Your task to perform on an android device: toggle javascript in the chrome app Image 0: 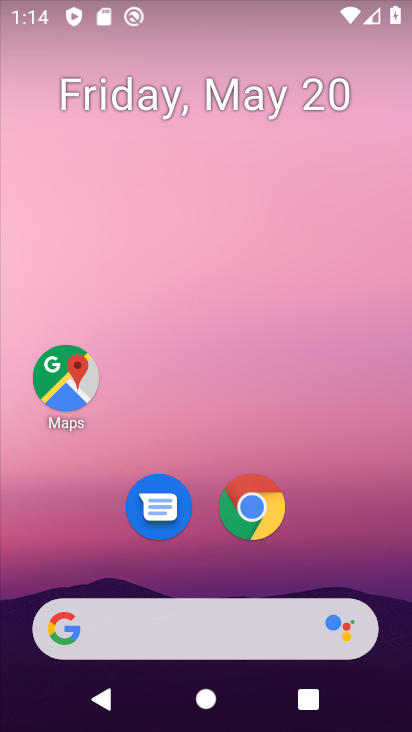
Step 0: click (264, 515)
Your task to perform on an android device: toggle javascript in the chrome app Image 1: 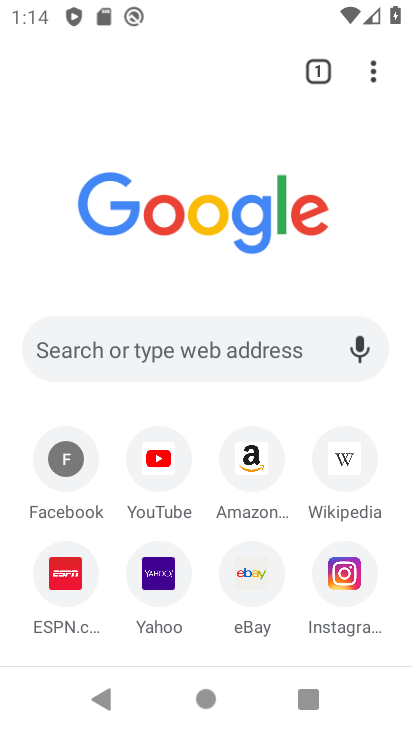
Step 1: click (378, 83)
Your task to perform on an android device: toggle javascript in the chrome app Image 2: 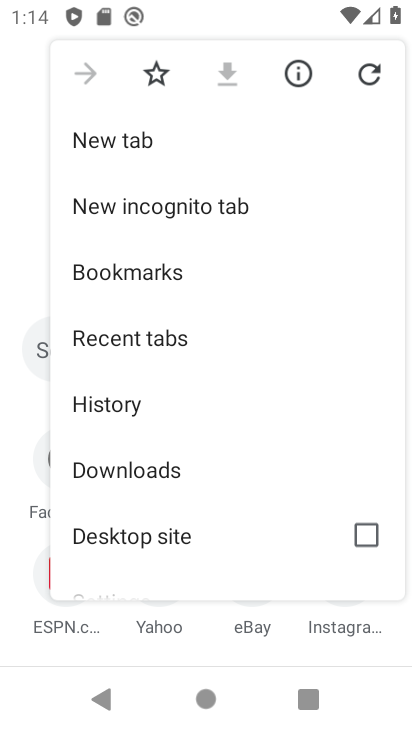
Step 2: drag from (208, 500) to (190, 125)
Your task to perform on an android device: toggle javascript in the chrome app Image 3: 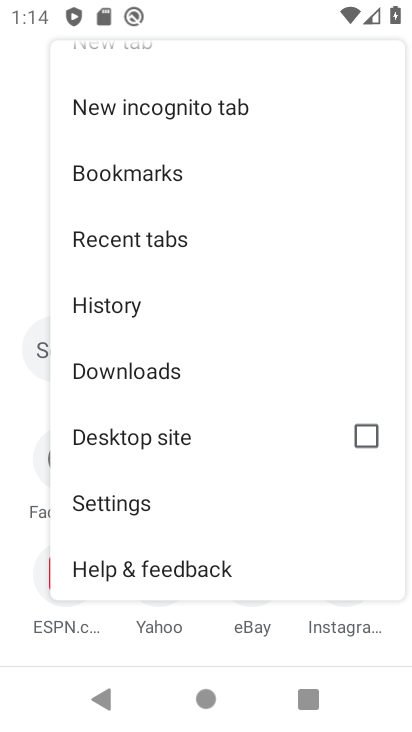
Step 3: click (170, 512)
Your task to perform on an android device: toggle javascript in the chrome app Image 4: 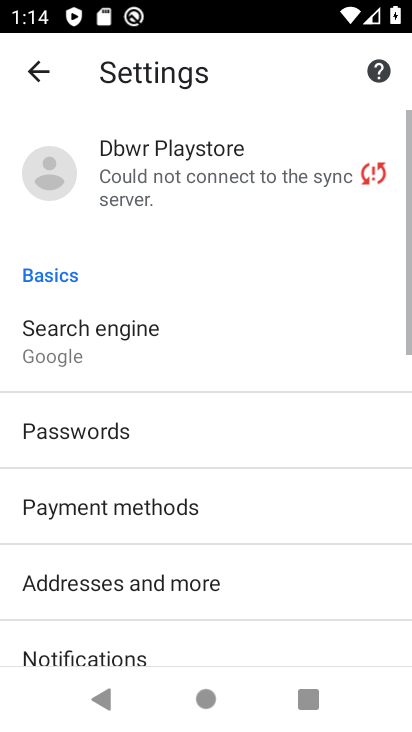
Step 4: drag from (236, 614) to (191, 172)
Your task to perform on an android device: toggle javascript in the chrome app Image 5: 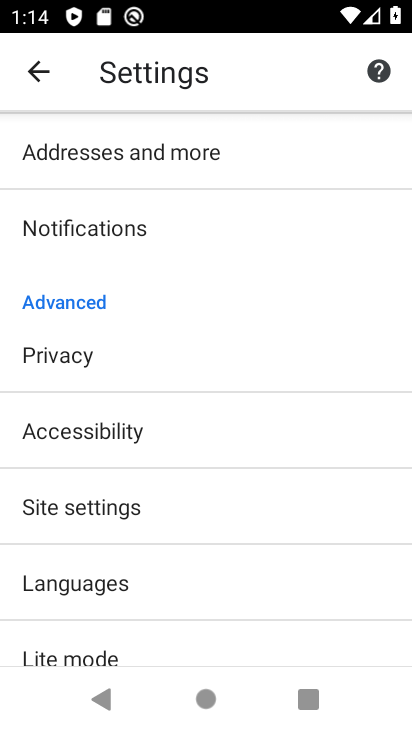
Step 5: drag from (200, 647) to (182, 446)
Your task to perform on an android device: toggle javascript in the chrome app Image 6: 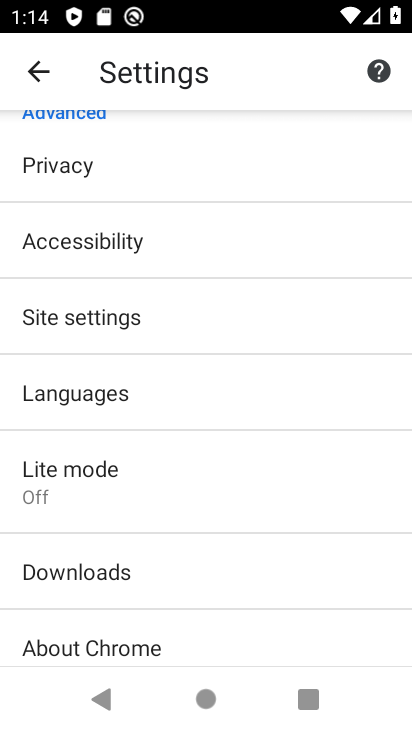
Step 6: click (161, 323)
Your task to perform on an android device: toggle javascript in the chrome app Image 7: 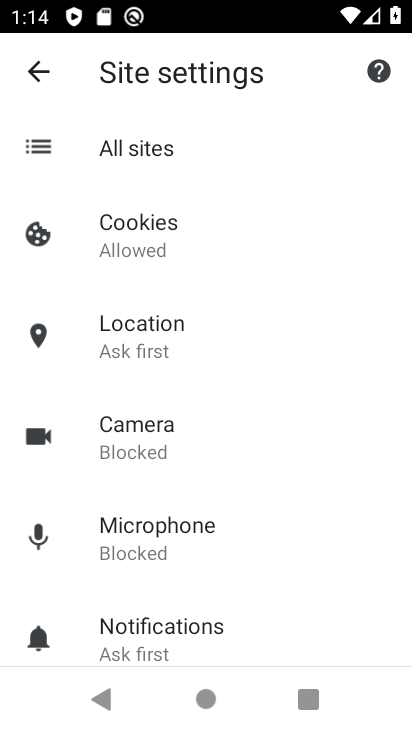
Step 7: drag from (252, 628) to (192, 269)
Your task to perform on an android device: toggle javascript in the chrome app Image 8: 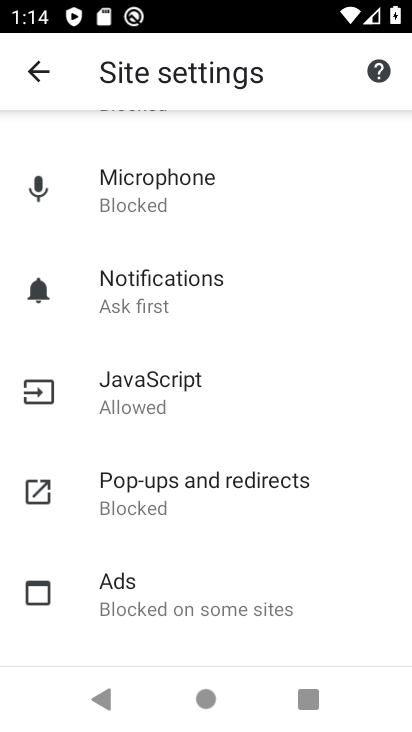
Step 8: click (229, 408)
Your task to perform on an android device: toggle javascript in the chrome app Image 9: 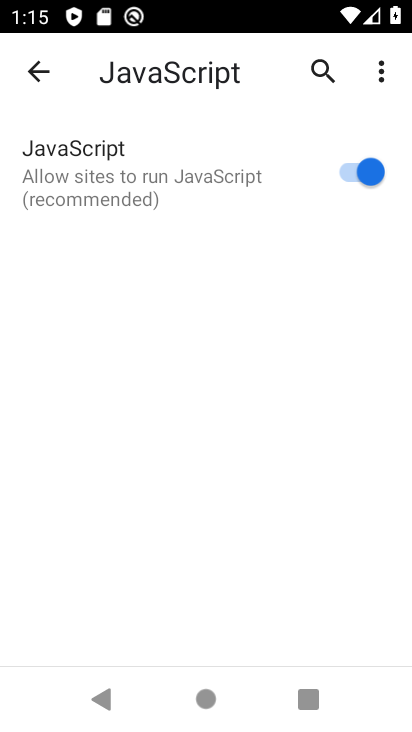
Step 9: click (364, 175)
Your task to perform on an android device: toggle javascript in the chrome app Image 10: 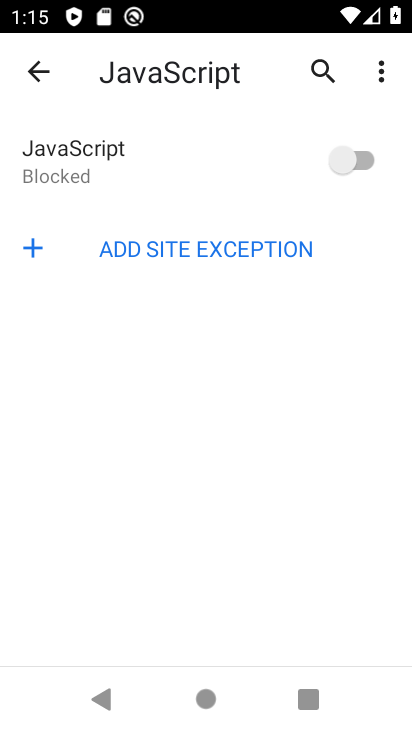
Step 10: task complete